Your task to perform on an android device: Find coffee shops on Maps Image 0: 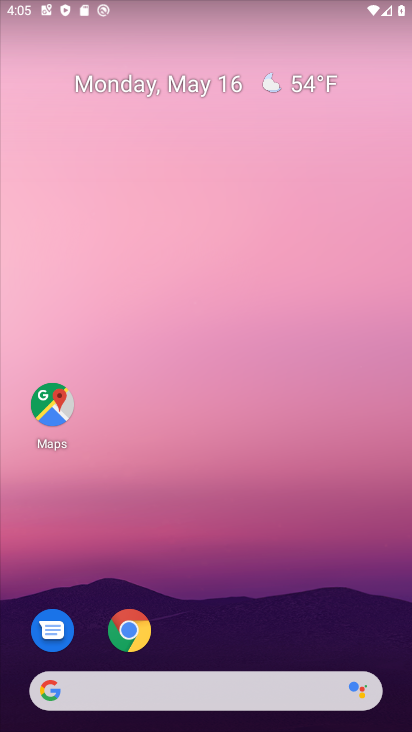
Step 0: click (47, 420)
Your task to perform on an android device: Find coffee shops on Maps Image 1: 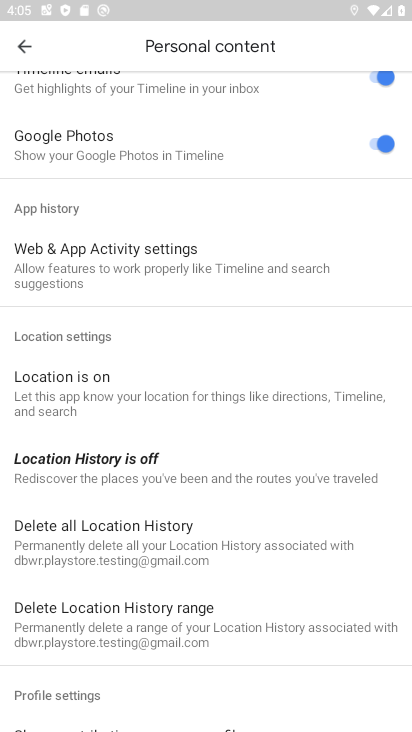
Step 1: click (25, 44)
Your task to perform on an android device: Find coffee shops on Maps Image 2: 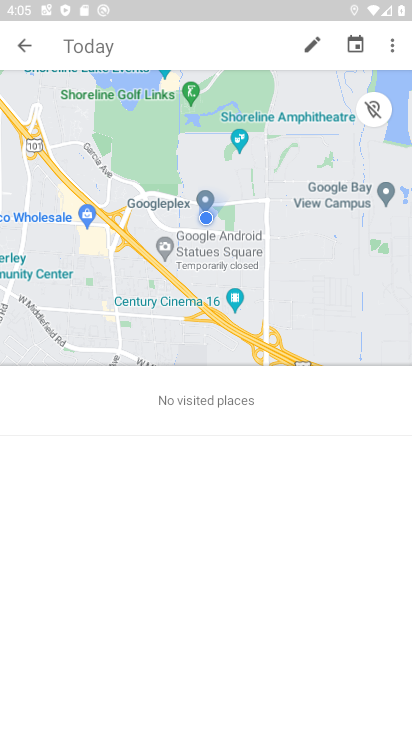
Step 2: click (25, 44)
Your task to perform on an android device: Find coffee shops on Maps Image 3: 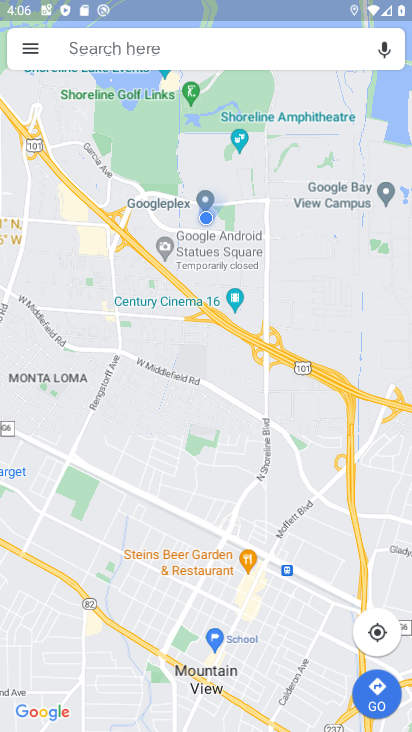
Step 3: click (97, 48)
Your task to perform on an android device: Find coffee shops on Maps Image 4: 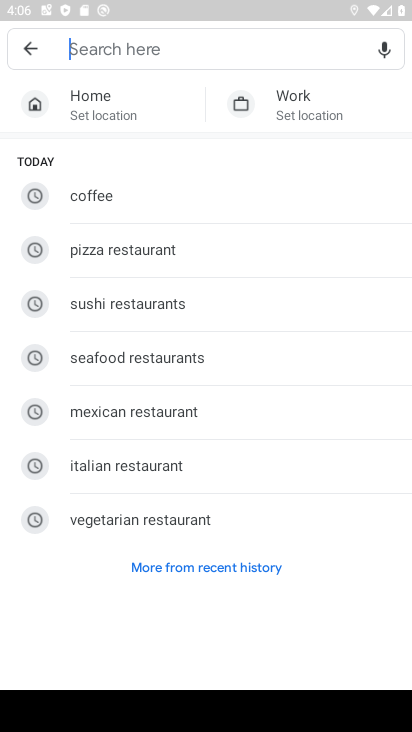
Step 4: click (115, 196)
Your task to perform on an android device: Find coffee shops on Maps Image 5: 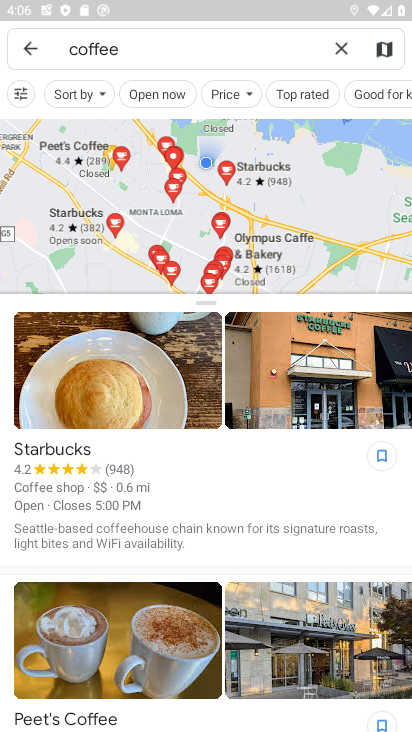
Step 5: task complete